Your task to perform on an android device: add a contact Image 0: 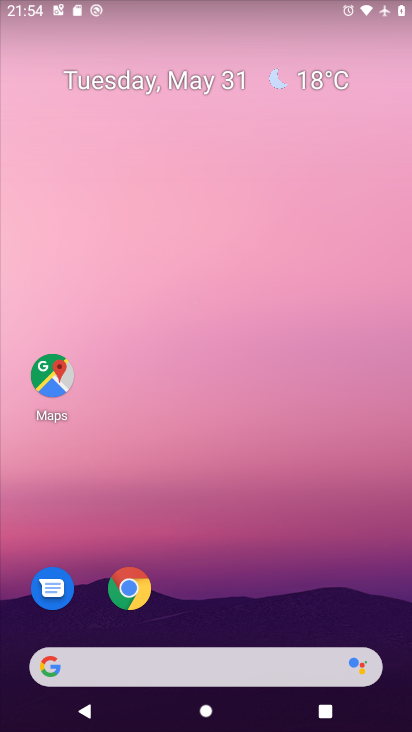
Step 0: press home button
Your task to perform on an android device: add a contact Image 1: 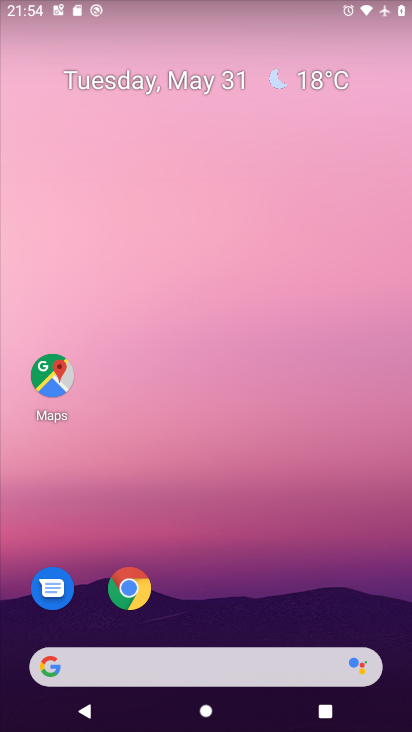
Step 1: drag from (176, 636) to (238, 175)
Your task to perform on an android device: add a contact Image 2: 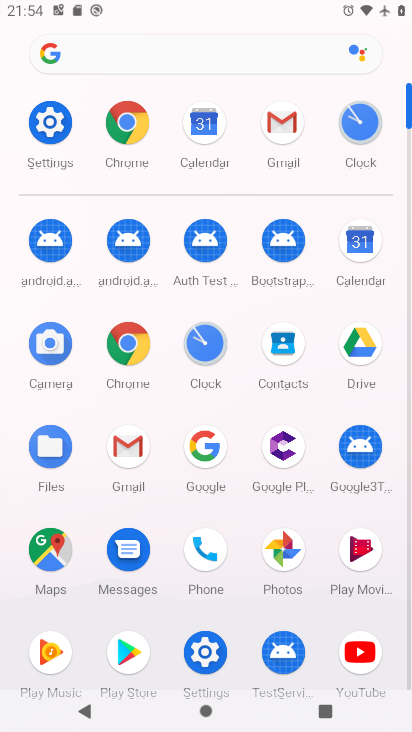
Step 2: click (288, 348)
Your task to perform on an android device: add a contact Image 3: 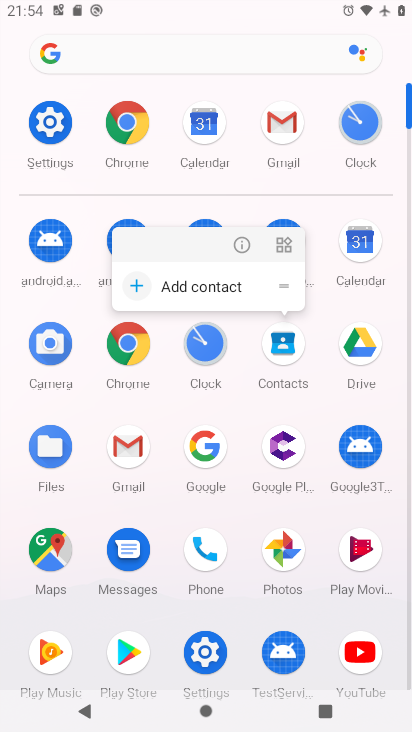
Step 3: click (276, 350)
Your task to perform on an android device: add a contact Image 4: 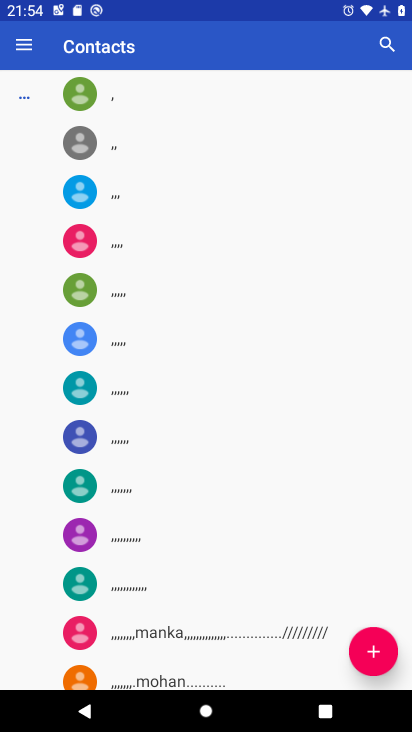
Step 4: click (366, 653)
Your task to perform on an android device: add a contact Image 5: 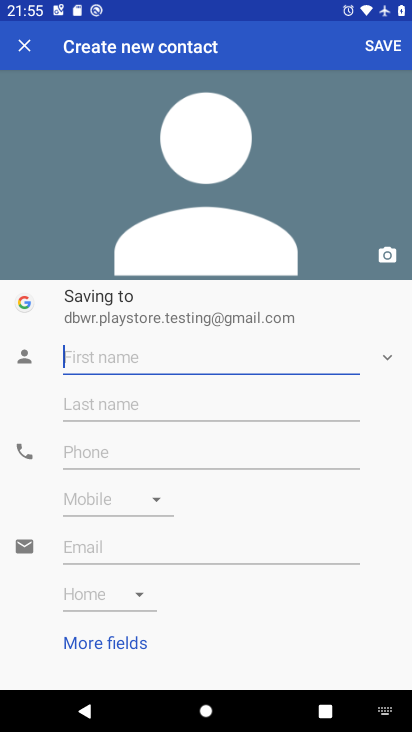
Step 5: type "etrgbfhgu"
Your task to perform on an android device: add a contact Image 6: 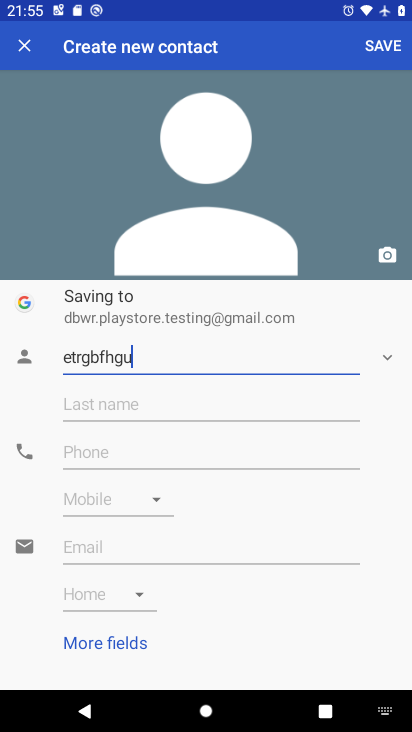
Step 6: click (82, 447)
Your task to perform on an android device: add a contact Image 7: 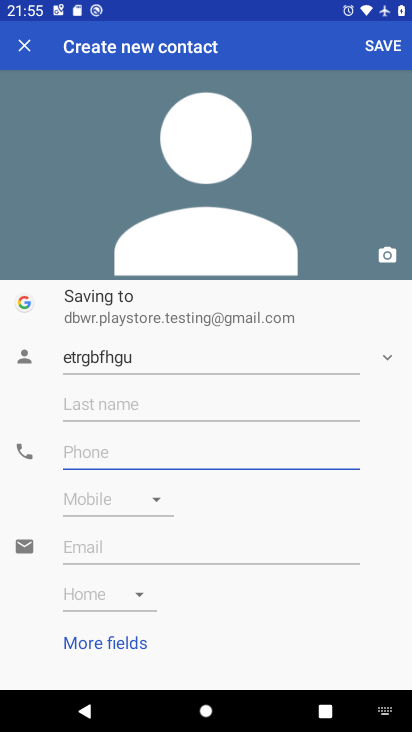
Step 7: type "37565747"
Your task to perform on an android device: add a contact Image 8: 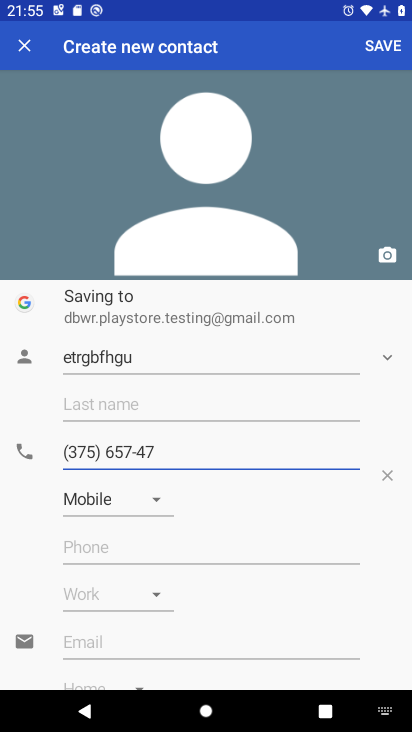
Step 8: click (381, 46)
Your task to perform on an android device: add a contact Image 9: 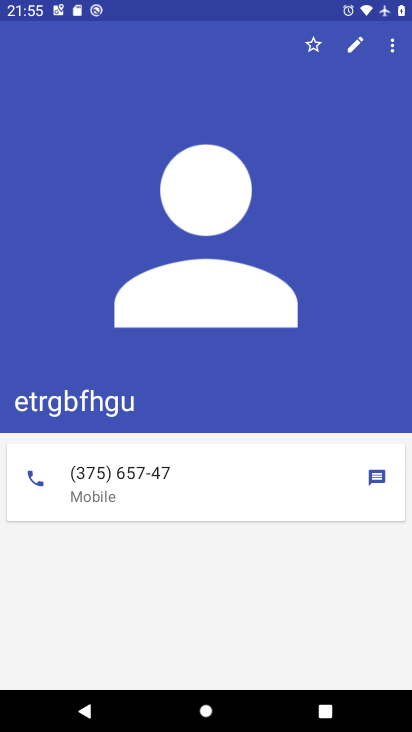
Step 9: task complete